Your task to perform on an android device: set the timer Image 0: 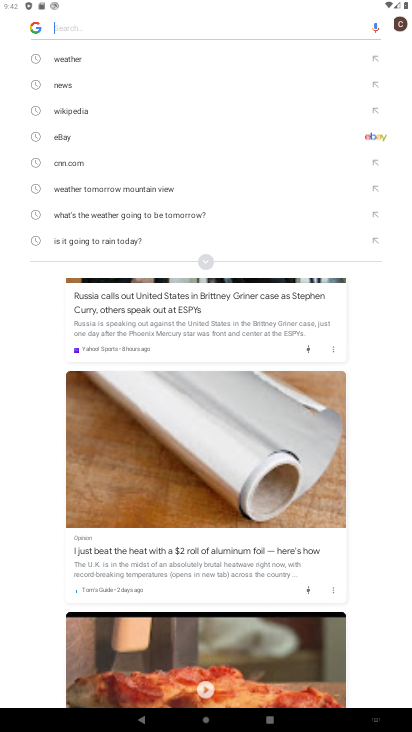
Step 0: press home button
Your task to perform on an android device: set the timer Image 1: 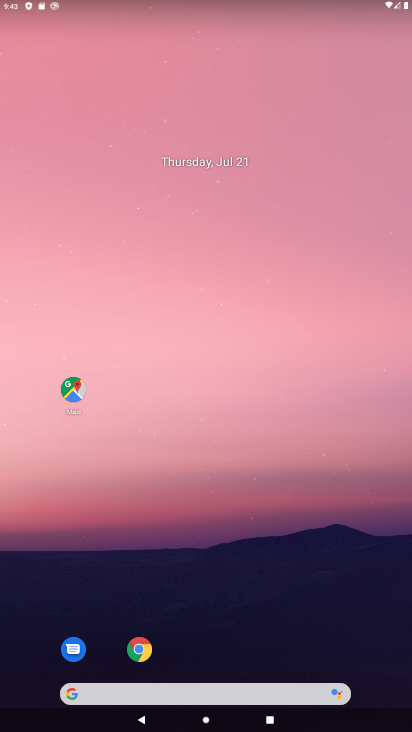
Step 1: drag from (286, 618) to (257, 241)
Your task to perform on an android device: set the timer Image 2: 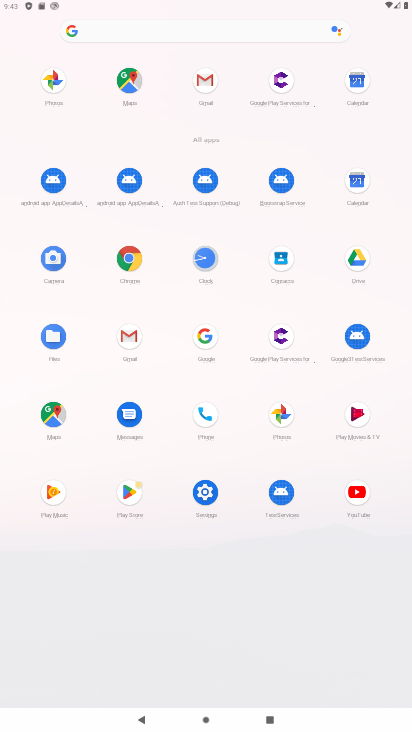
Step 2: click (199, 513)
Your task to perform on an android device: set the timer Image 3: 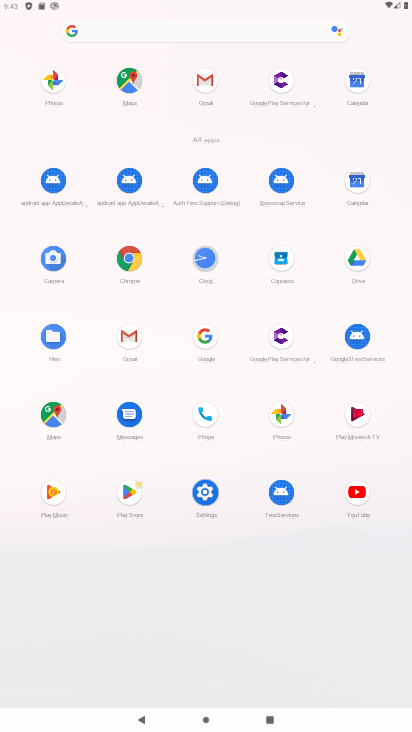
Step 3: click (199, 513)
Your task to perform on an android device: set the timer Image 4: 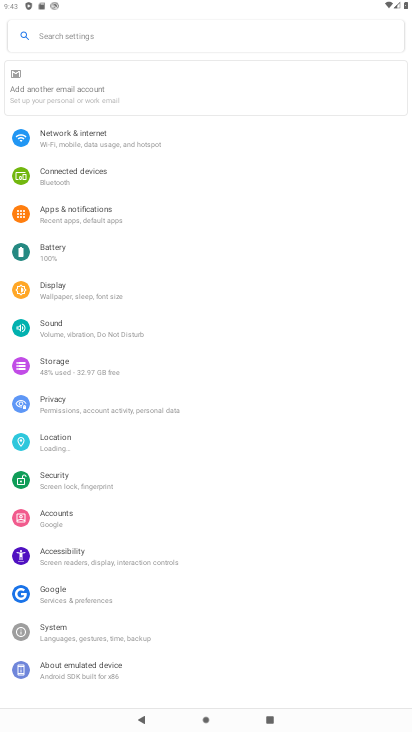
Step 4: click (199, 513)
Your task to perform on an android device: set the timer Image 5: 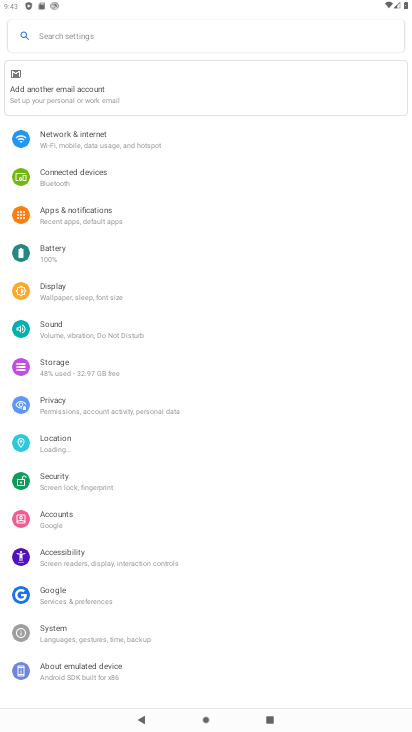
Step 5: click (199, 513)
Your task to perform on an android device: set the timer Image 6: 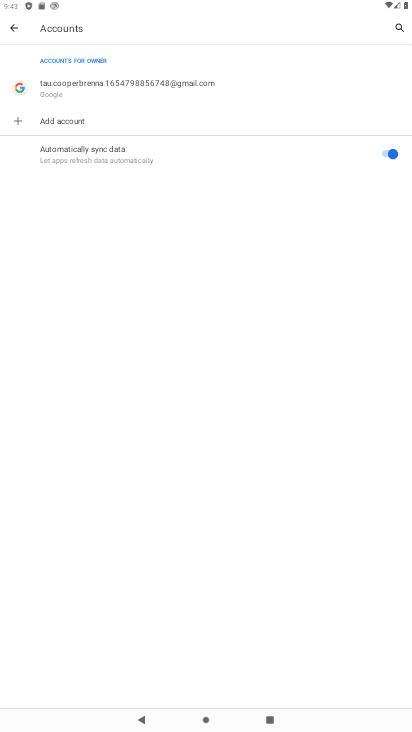
Step 6: click (11, 23)
Your task to perform on an android device: set the timer Image 7: 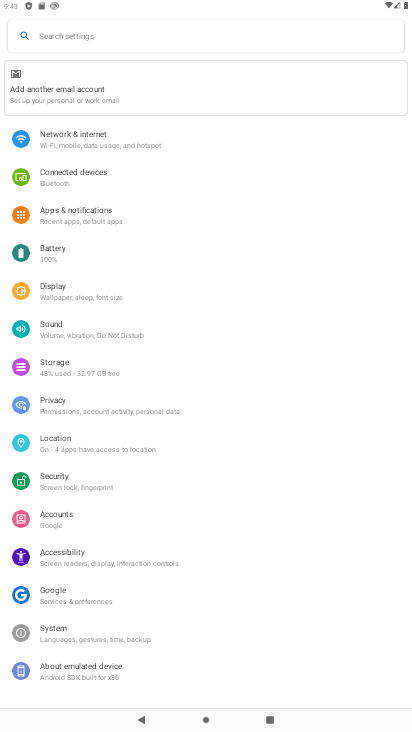
Step 7: press home button
Your task to perform on an android device: set the timer Image 8: 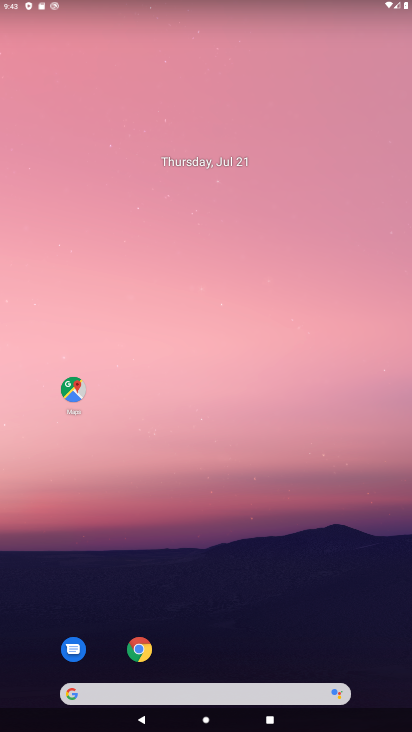
Step 8: drag from (354, 565) to (299, 149)
Your task to perform on an android device: set the timer Image 9: 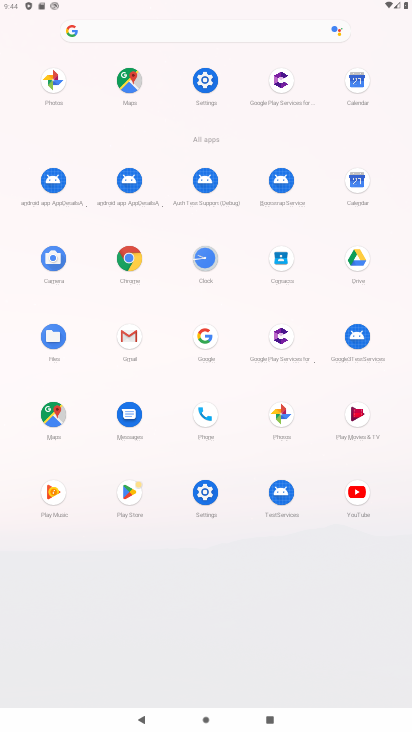
Step 9: click (213, 268)
Your task to perform on an android device: set the timer Image 10: 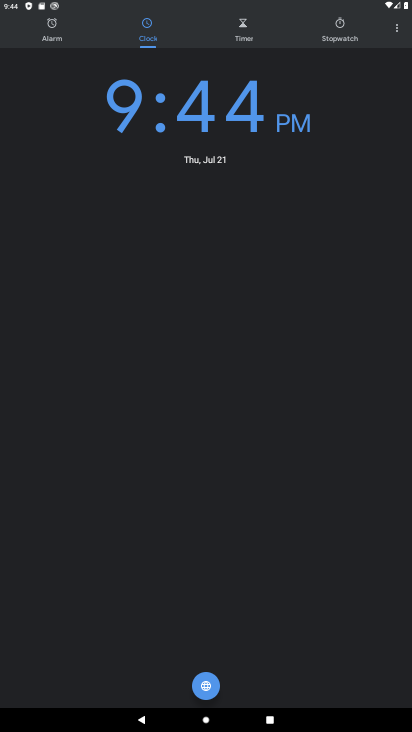
Step 10: click (245, 19)
Your task to perform on an android device: set the timer Image 11: 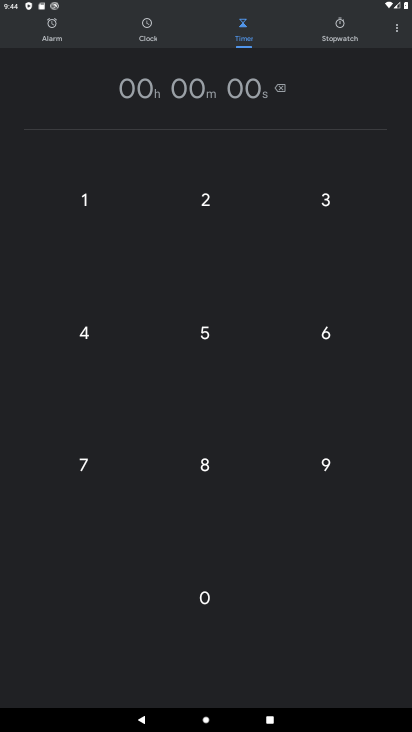
Step 11: click (318, 207)
Your task to perform on an android device: set the timer Image 12: 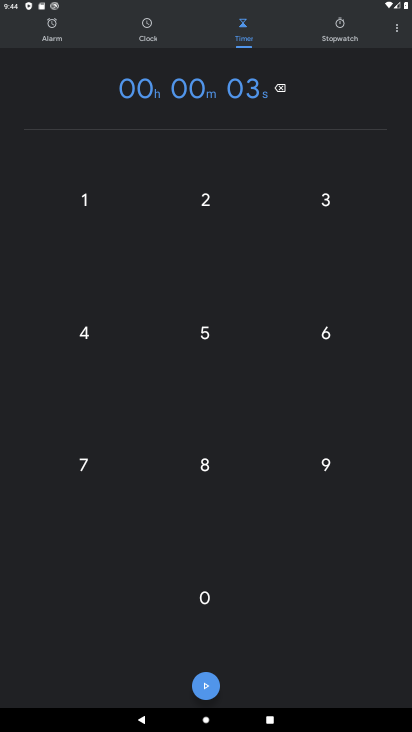
Step 12: click (332, 330)
Your task to perform on an android device: set the timer Image 13: 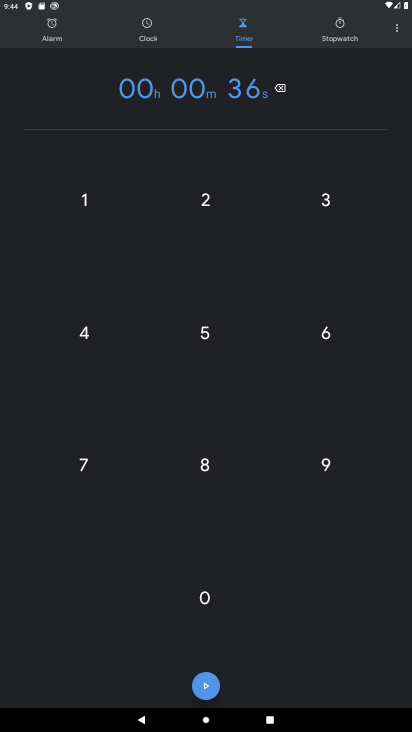
Step 13: click (204, 489)
Your task to perform on an android device: set the timer Image 14: 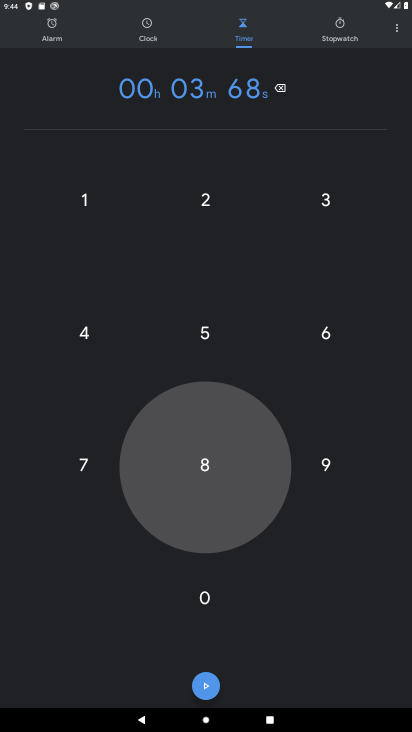
Step 14: click (204, 489)
Your task to perform on an android device: set the timer Image 15: 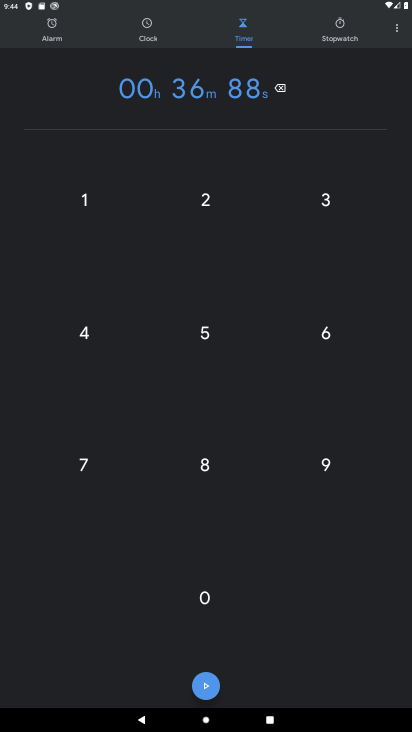
Step 15: click (208, 686)
Your task to perform on an android device: set the timer Image 16: 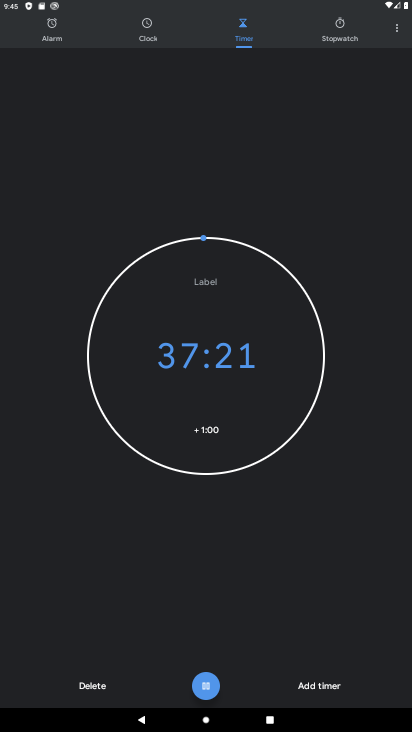
Step 16: task complete